Your task to perform on an android device: Open internet settings Image 0: 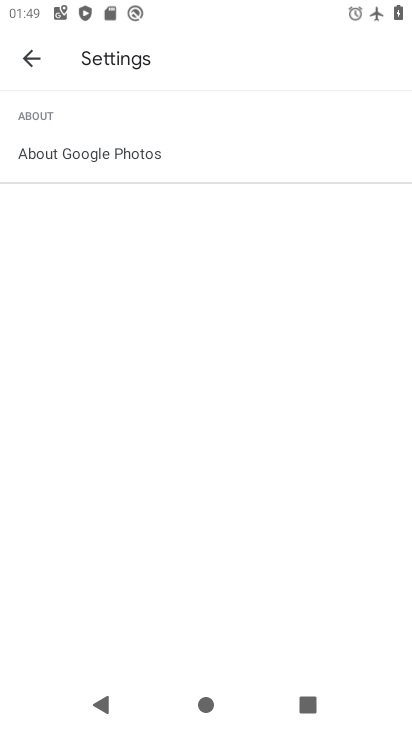
Step 0: press home button
Your task to perform on an android device: Open internet settings Image 1: 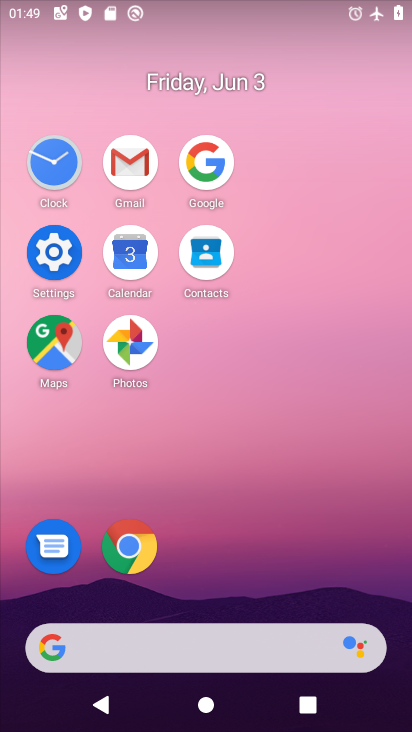
Step 1: click (75, 170)
Your task to perform on an android device: Open internet settings Image 2: 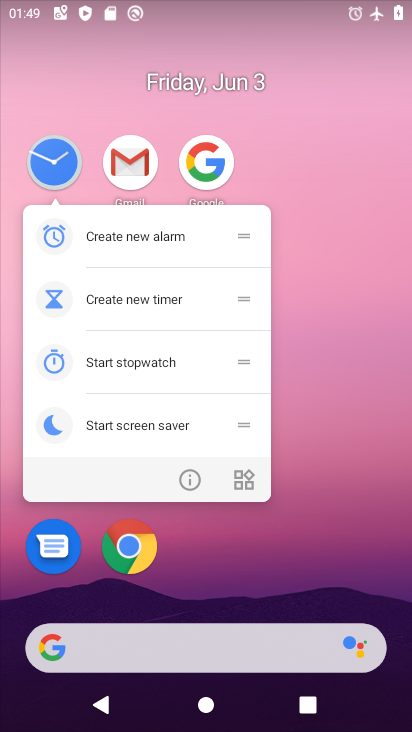
Step 2: click (357, 235)
Your task to perform on an android device: Open internet settings Image 3: 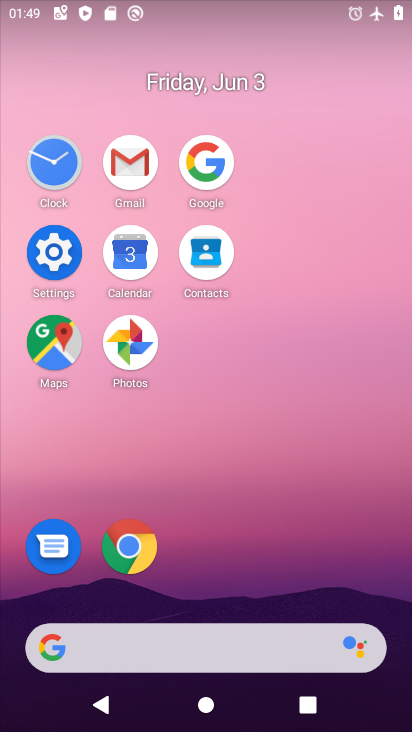
Step 3: click (47, 258)
Your task to perform on an android device: Open internet settings Image 4: 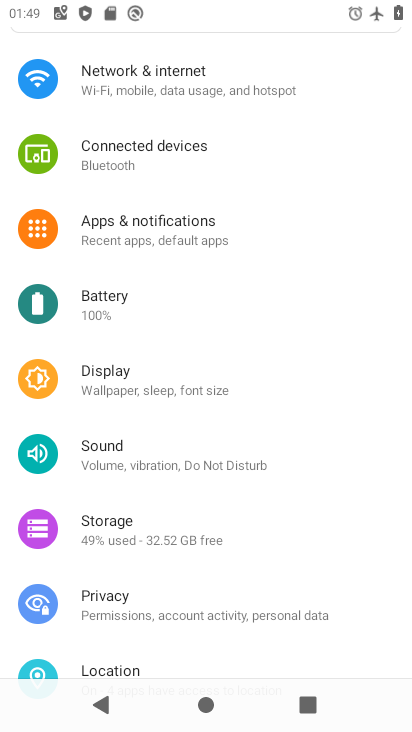
Step 4: click (214, 91)
Your task to perform on an android device: Open internet settings Image 5: 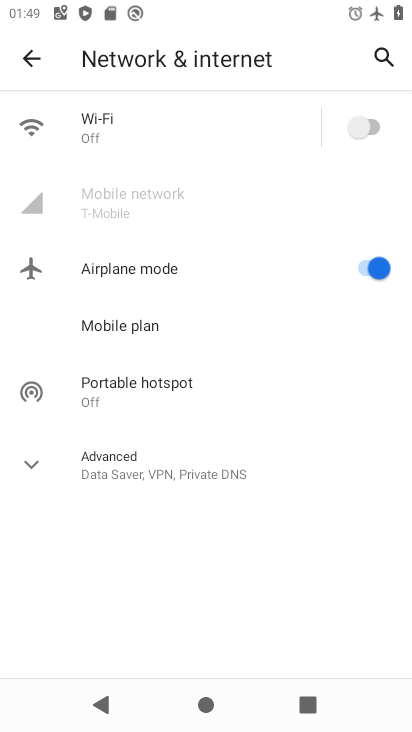
Step 5: task complete